Your task to perform on an android device: toggle javascript in the chrome app Image 0: 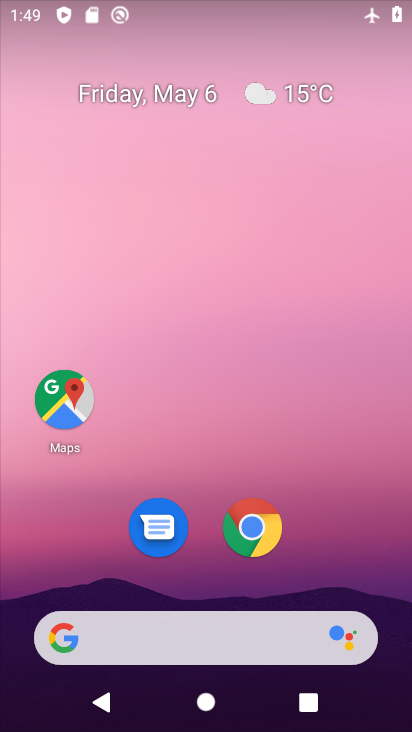
Step 0: click (264, 538)
Your task to perform on an android device: toggle javascript in the chrome app Image 1: 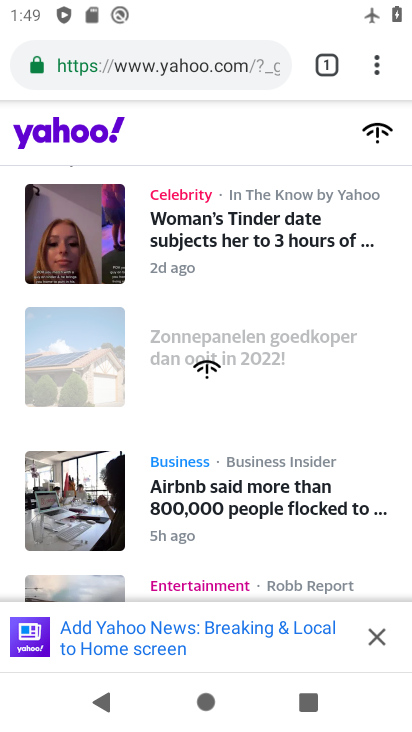
Step 1: drag from (376, 58) to (149, 576)
Your task to perform on an android device: toggle javascript in the chrome app Image 2: 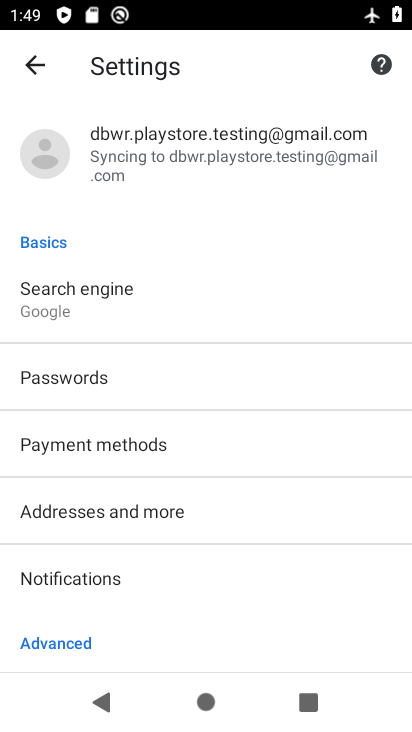
Step 2: drag from (140, 595) to (127, 246)
Your task to perform on an android device: toggle javascript in the chrome app Image 3: 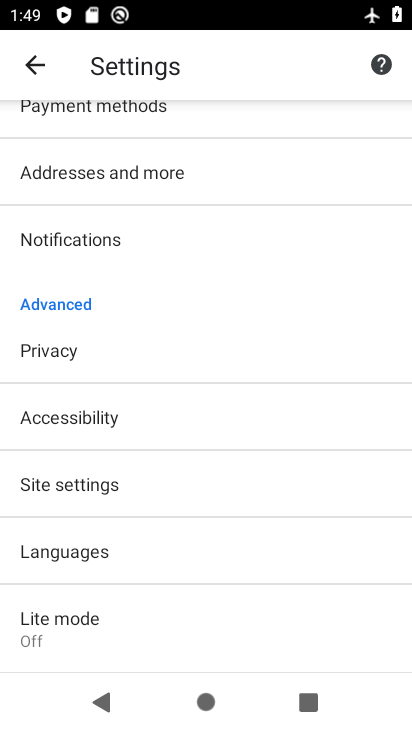
Step 3: click (50, 487)
Your task to perform on an android device: toggle javascript in the chrome app Image 4: 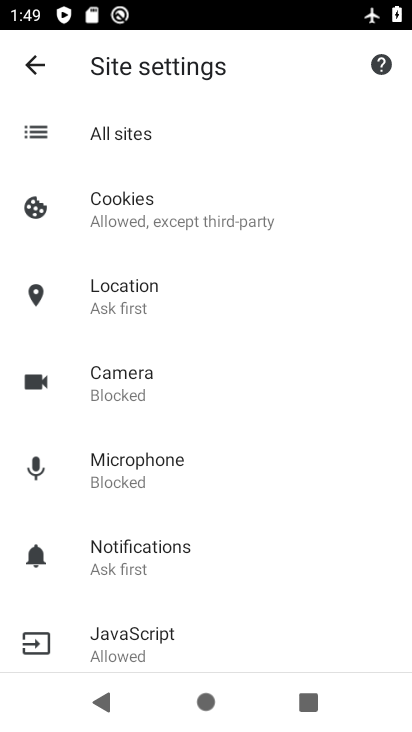
Step 4: click (131, 649)
Your task to perform on an android device: toggle javascript in the chrome app Image 5: 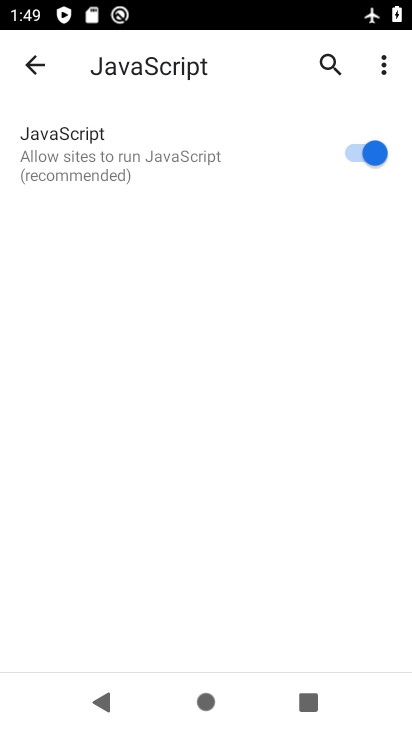
Step 5: click (372, 150)
Your task to perform on an android device: toggle javascript in the chrome app Image 6: 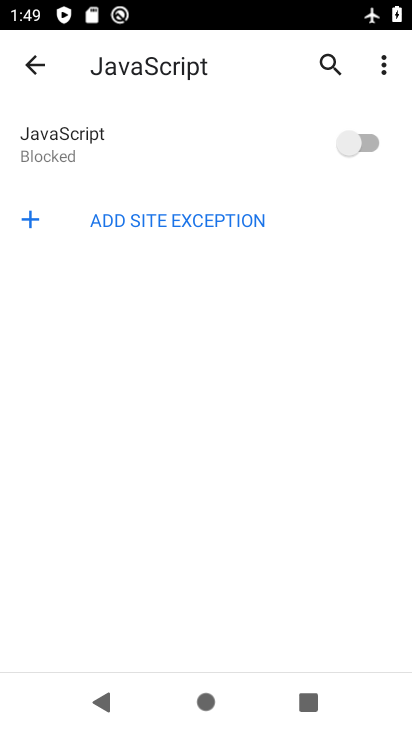
Step 6: task complete